Your task to perform on an android device: set the timer Image 0: 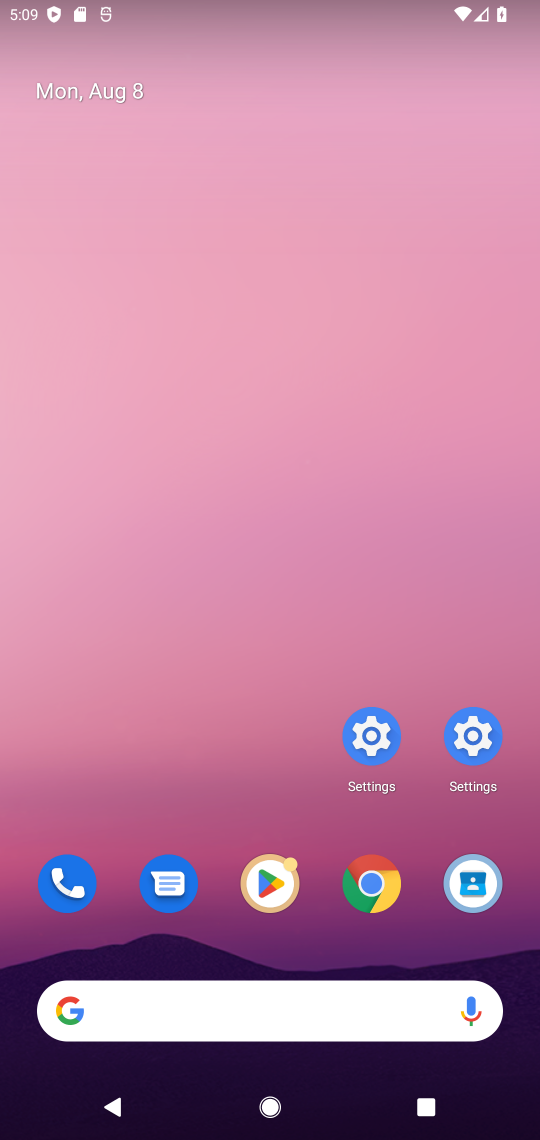
Step 0: drag from (383, 773) to (153, 308)
Your task to perform on an android device: set the timer Image 1: 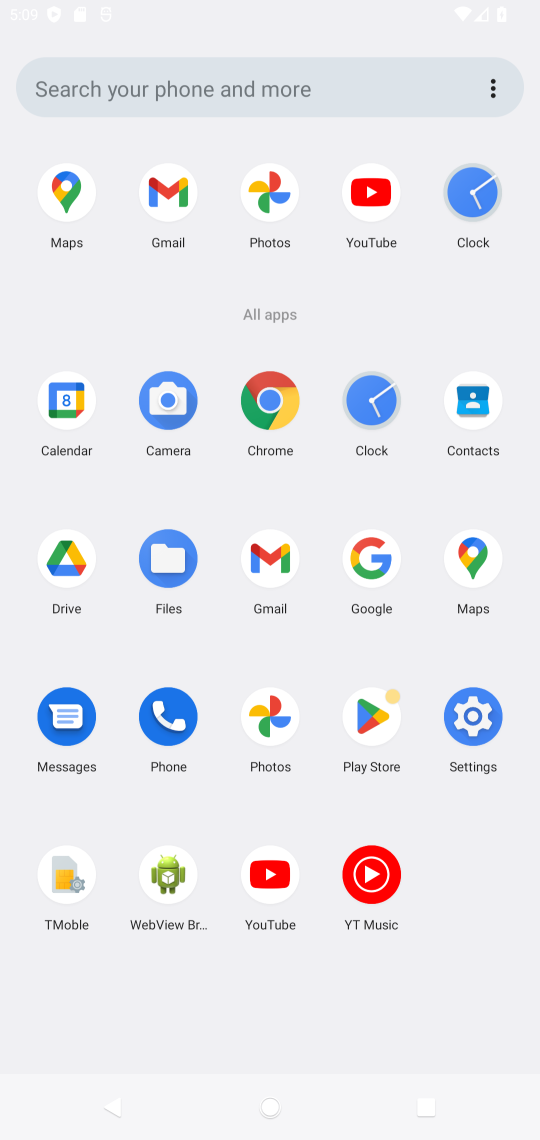
Step 1: drag from (211, 858) to (232, 304)
Your task to perform on an android device: set the timer Image 2: 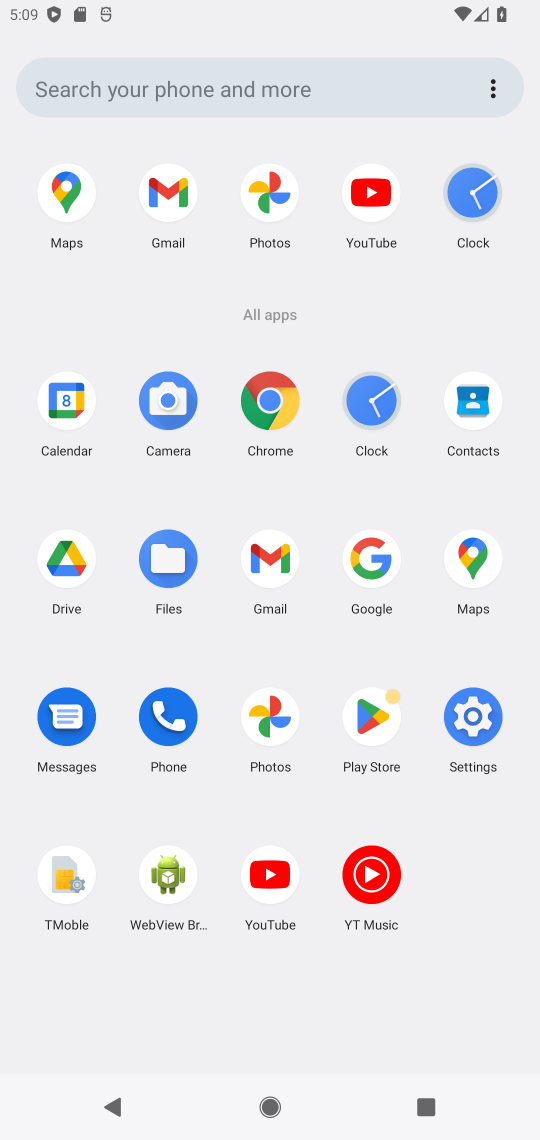
Step 2: click (363, 399)
Your task to perform on an android device: set the timer Image 3: 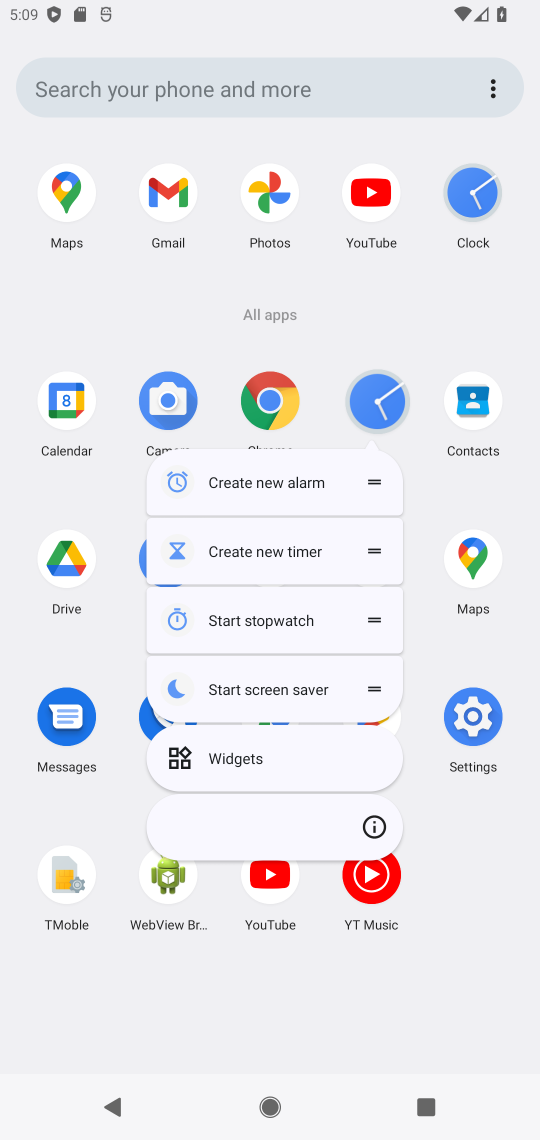
Step 3: click (373, 396)
Your task to perform on an android device: set the timer Image 4: 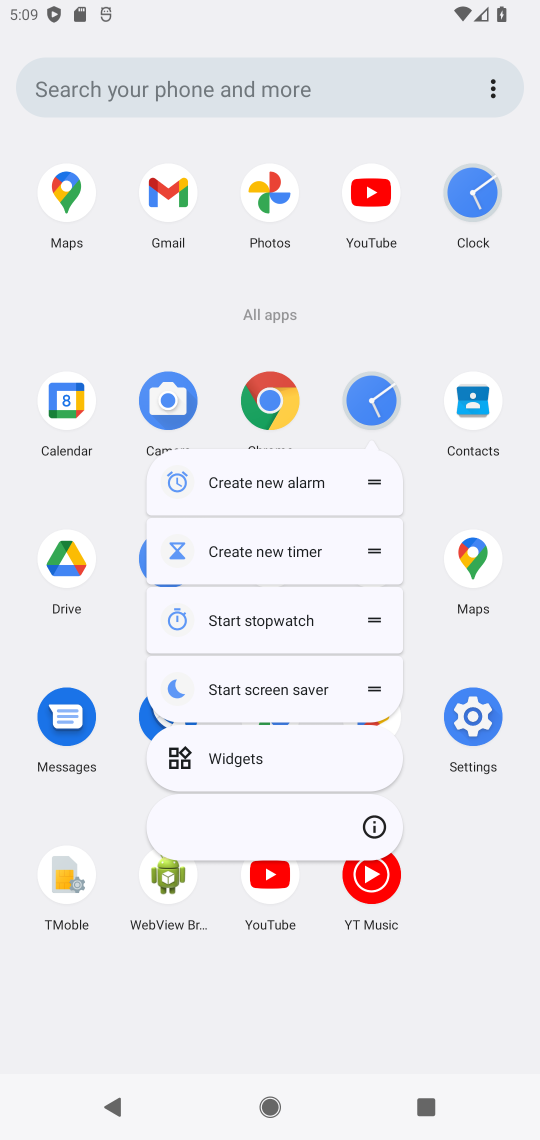
Step 4: click (373, 396)
Your task to perform on an android device: set the timer Image 5: 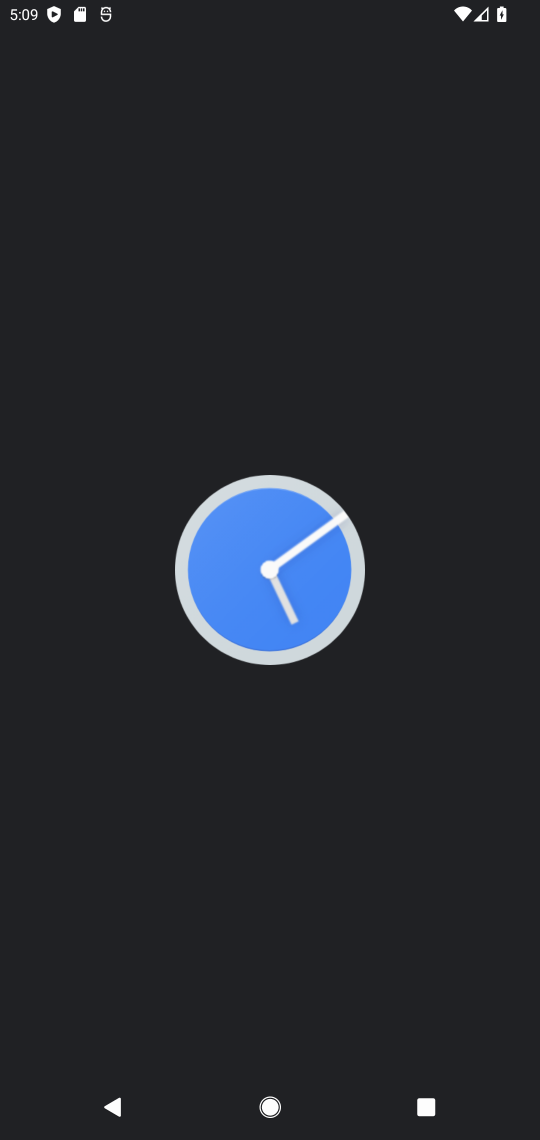
Step 5: click (376, 400)
Your task to perform on an android device: set the timer Image 6: 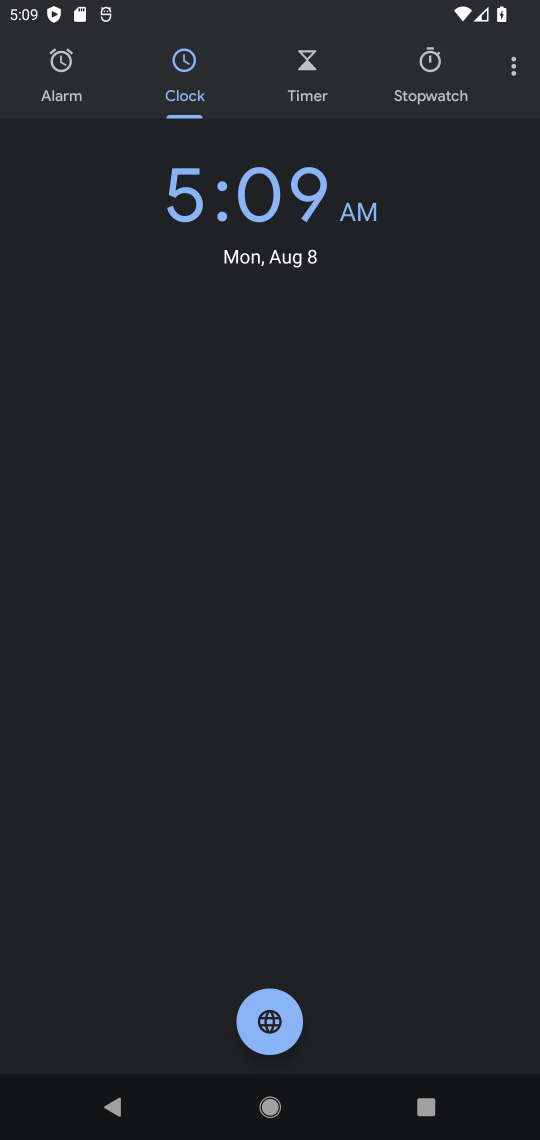
Step 6: click (302, 71)
Your task to perform on an android device: set the timer Image 7: 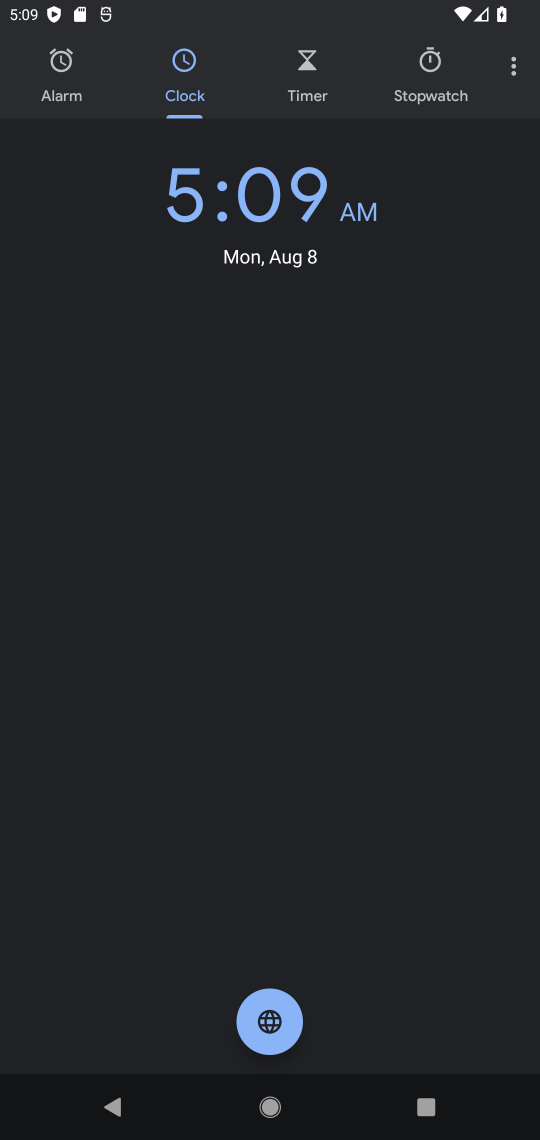
Step 7: click (304, 71)
Your task to perform on an android device: set the timer Image 8: 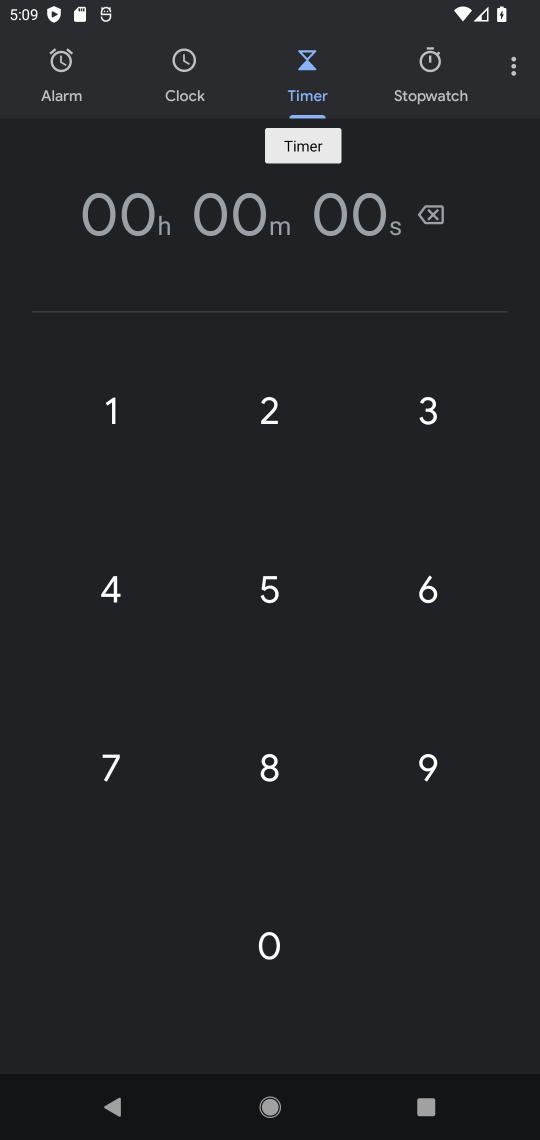
Step 8: click (277, 613)
Your task to perform on an android device: set the timer Image 9: 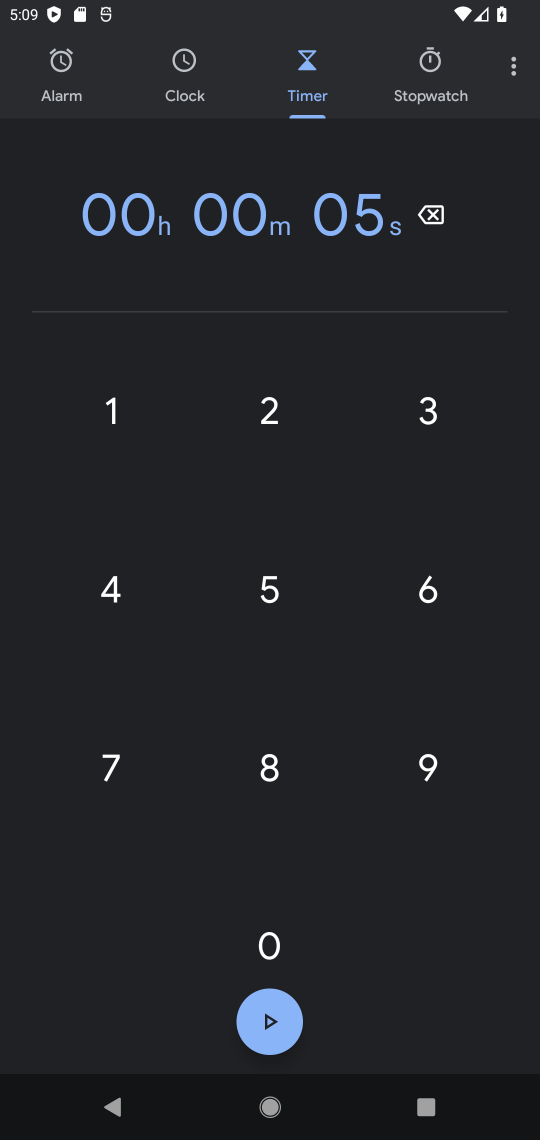
Step 9: click (262, 579)
Your task to perform on an android device: set the timer Image 10: 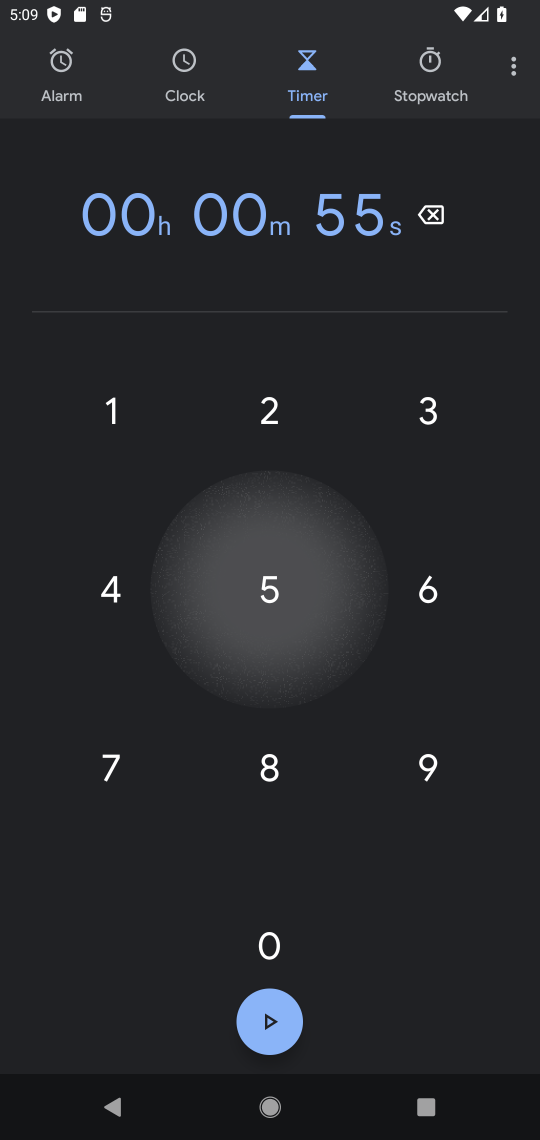
Step 10: click (262, 582)
Your task to perform on an android device: set the timer Image 11: 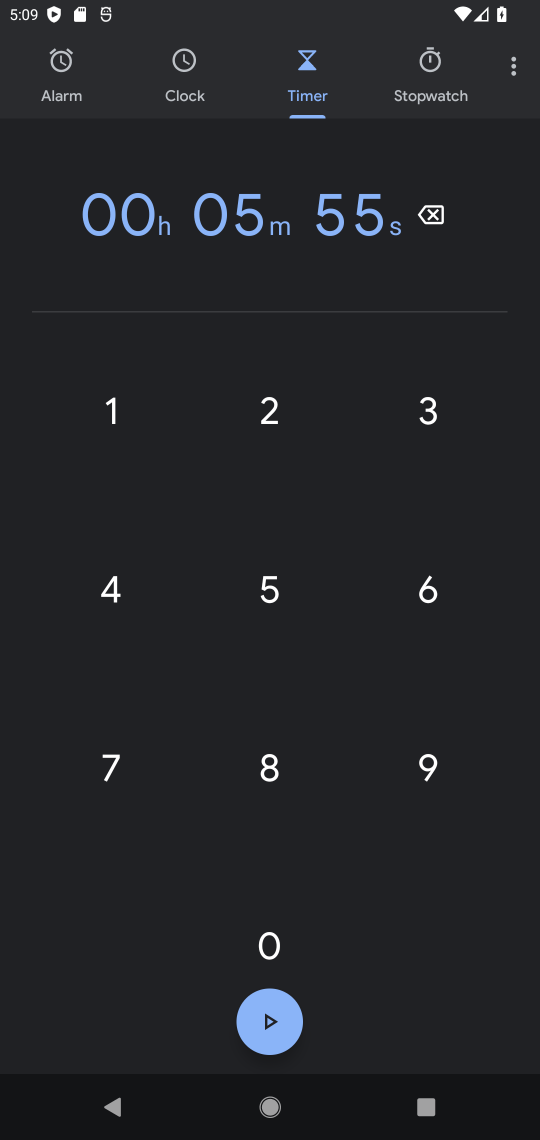
Step 11: click (264, 1018)
Your task to perform on an android device: set the timer Image 12: 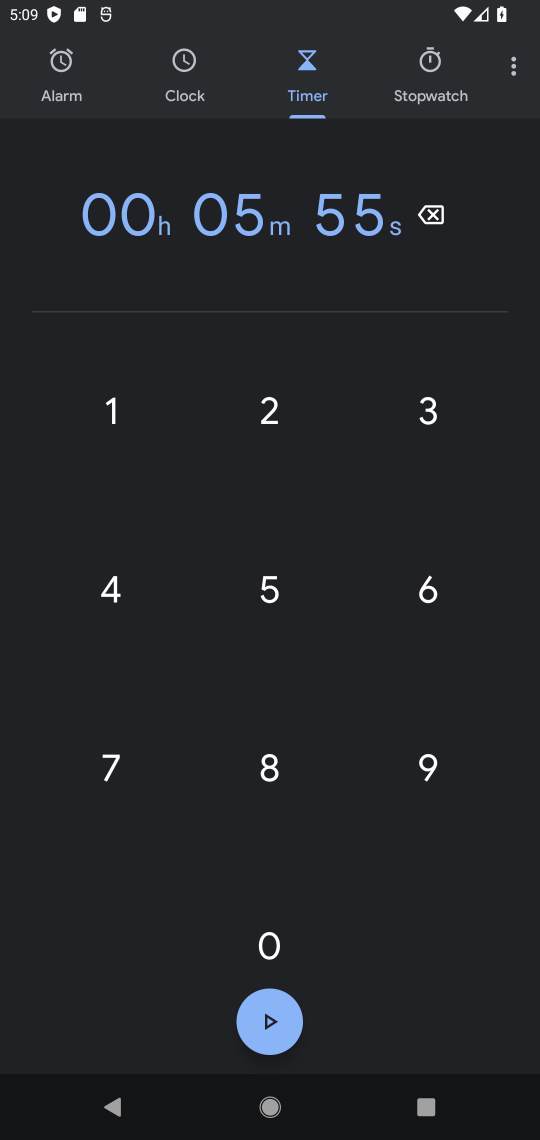
Step 12: click (268, 1015)
Your task to perform on an android device: set the timer Image 13: 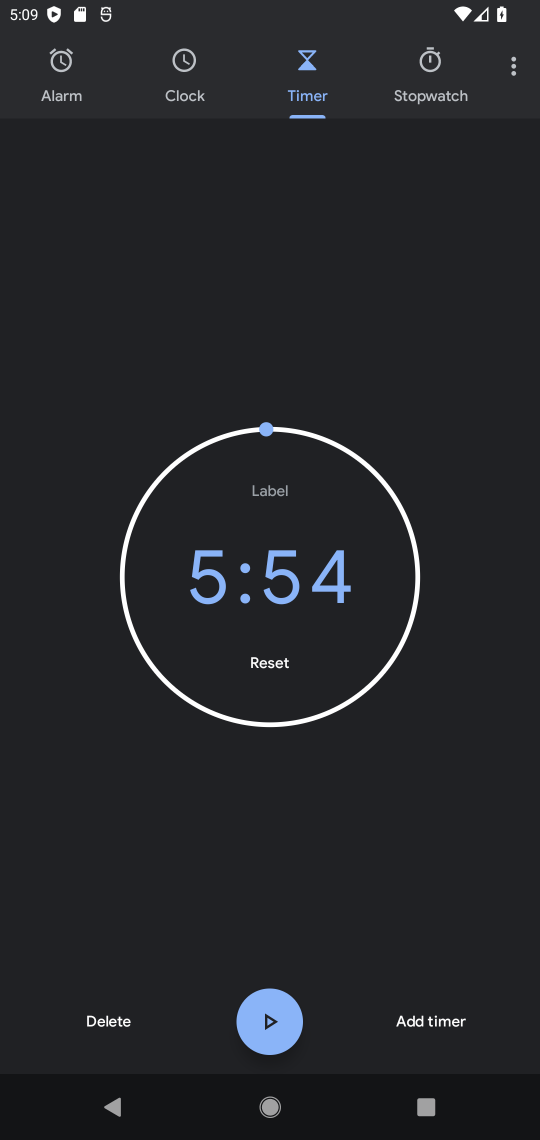
Step 13: click (273, 1018)
Your task to perform on an android device: set the timer Image 14: 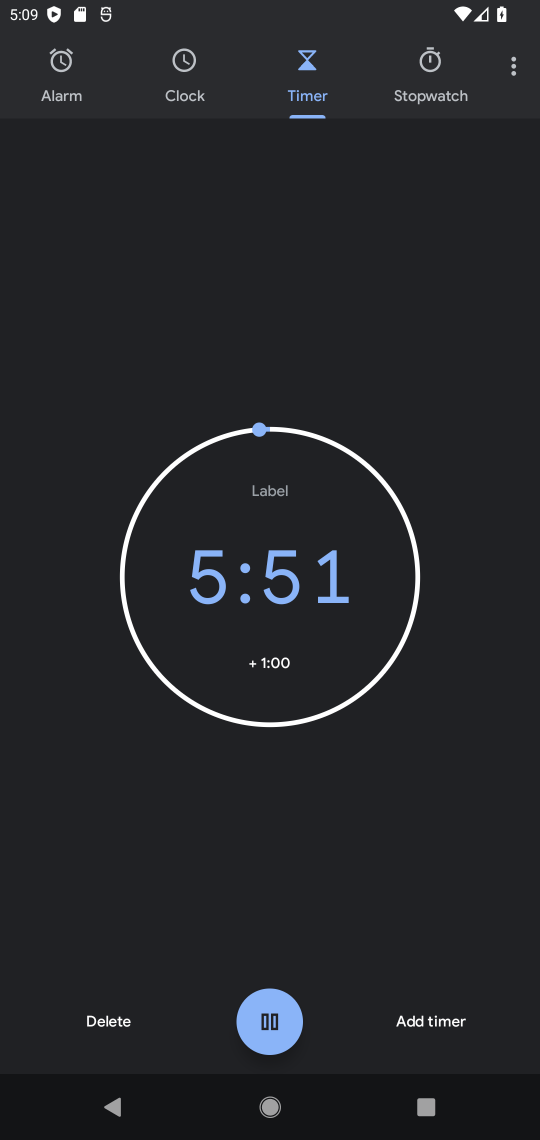
Step 14: click (263, 1011)
Your task to perform on an android device: set the timer Image 15: 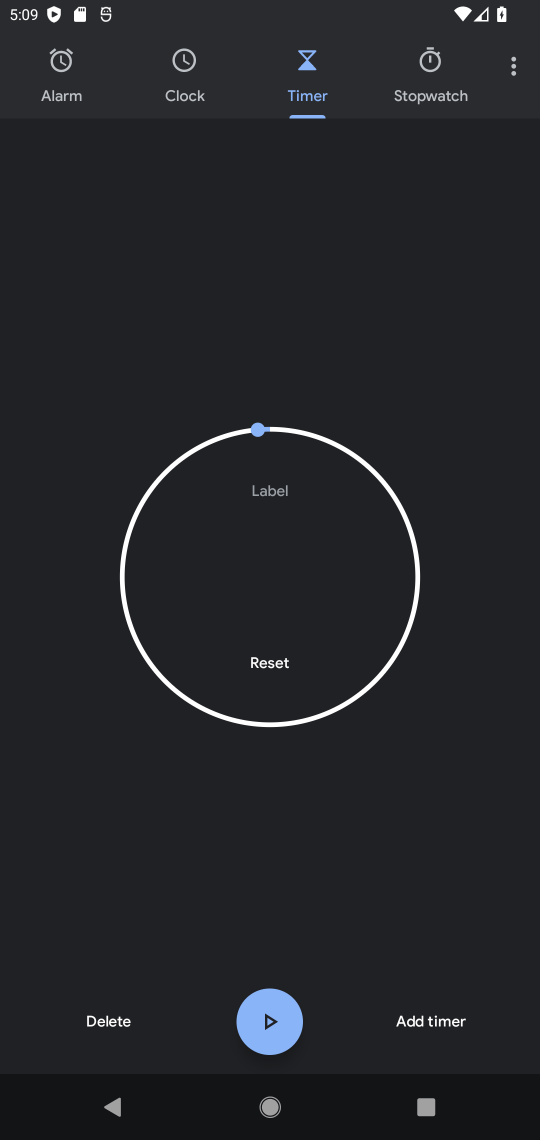
Step 15: task complete